Your task to perform on an android device: Turn off the flashlight Image 0: 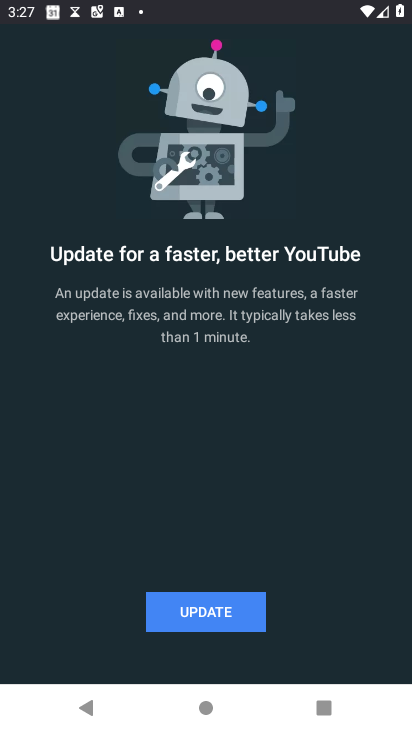
Step 0: press home button
Your task to perform on an android device: Turn off the flashlight Image 1: 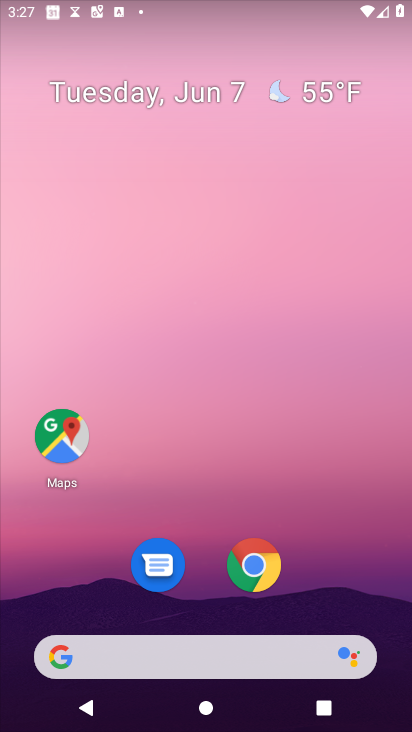
Step 1: task complete